Your task to perform on an android device: Go to Reddit.com Image 0: 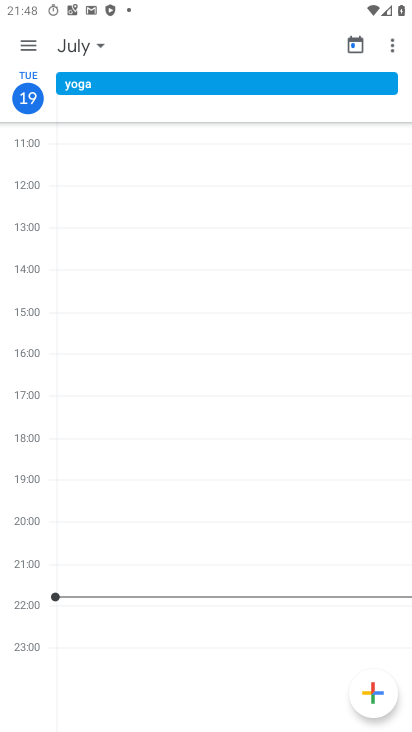
Step 0: press home button
Your task to perform on an android device: Go to Reddit.com Image 1: 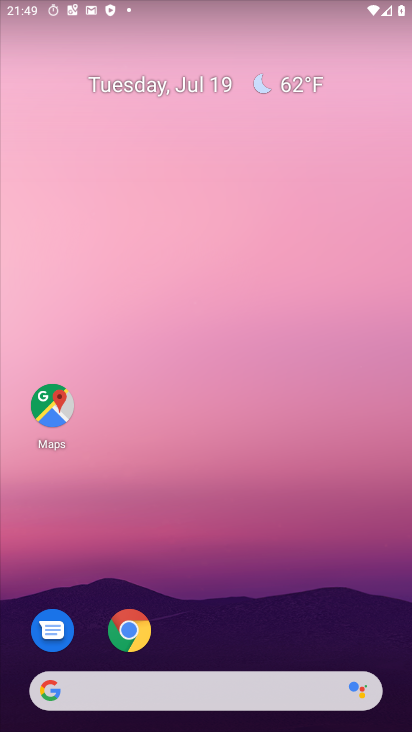
Step 1: click (78, 697)
Your task to perform on an android device: Go to Reddit.com Image 2: 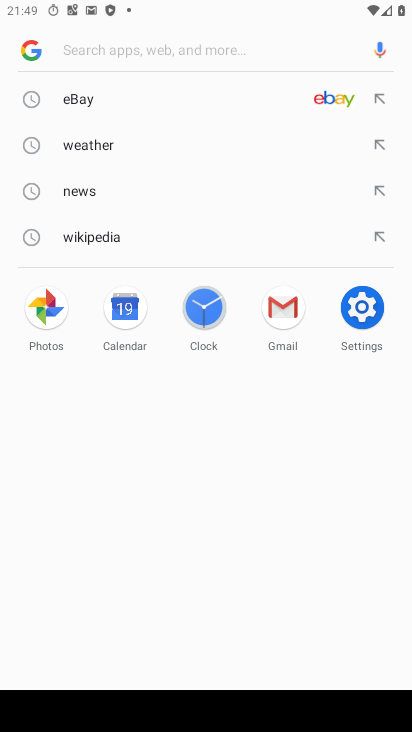
Step 2: type " Reddit.com"
Your task to perform on an android device: Go to Reddit.com Image 3: 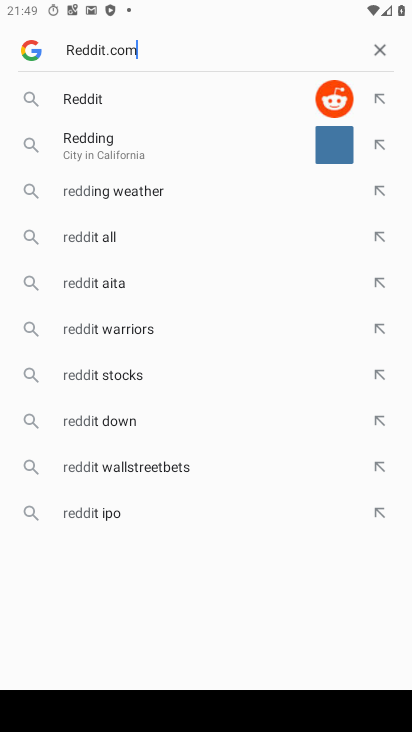
Step 3: type ""
Your task to perform on an android device: Go to Reddit.com Image 4: 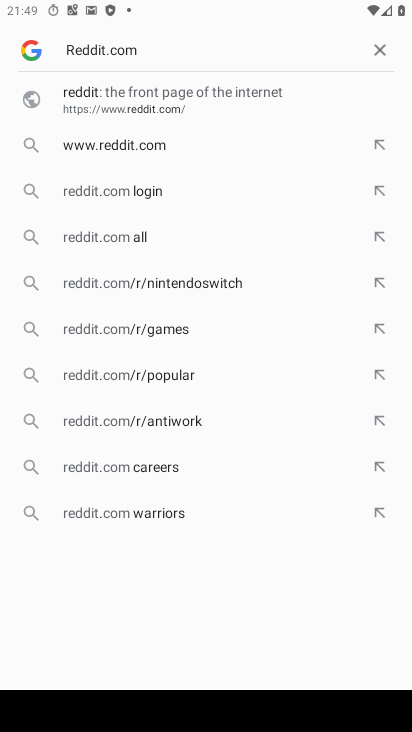
Step 4: type ""
Your task to perform on an android device: Go to Reddit.com Image 5: 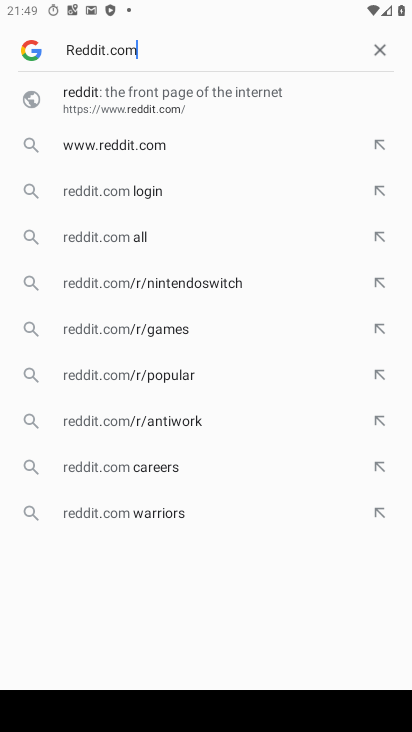
Step 5: type ""
Your task to perform on an android device: Go to Reddit.com Image 6: 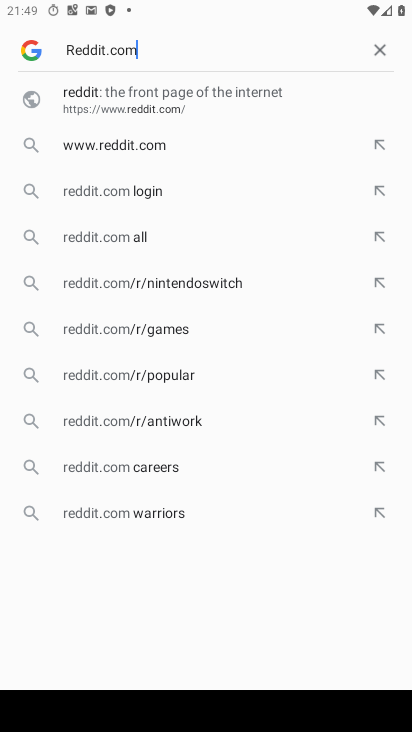
Step 6: task complete